Your task to perform on an android device: open the mobile data screen to see how much data has been used Image 0: 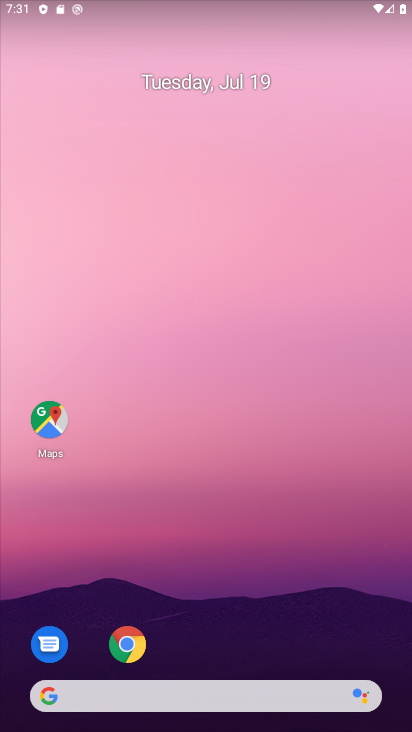
Step 0: drag from (277, 539) to (318, 114)
Your task to perform on an android device: open the mobile data screen to see how much data has been used Image 1: 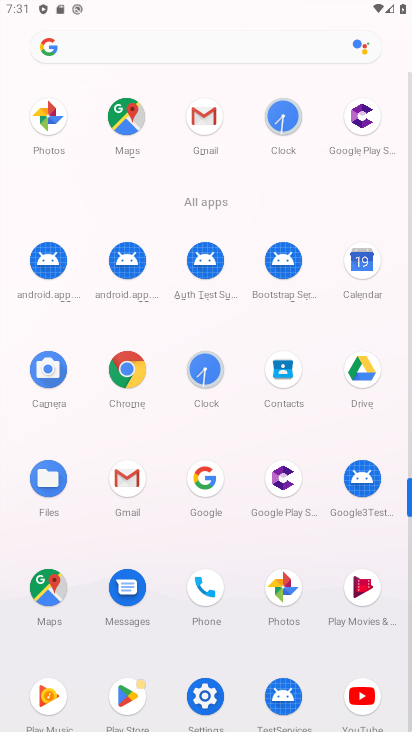
Step 1: drag from (226, 622) to (148, 242)
Your task to perform on an android device: open the mobile data screen to see how much data has been used Image 2: 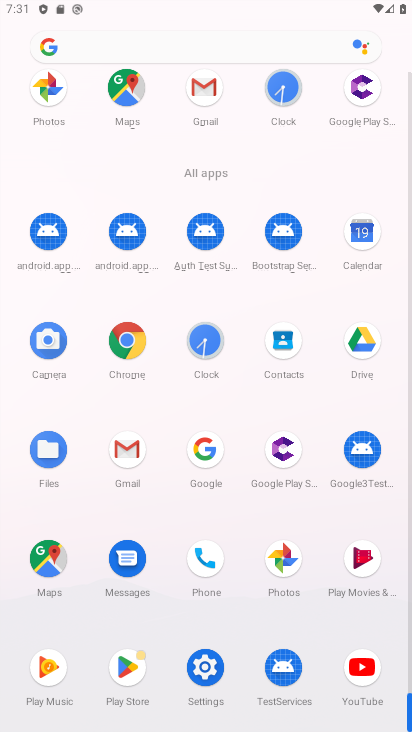
Step 2: click (198, 670)
Your task to perform on an android device: open the mobile data screen to see how much data has been used Image 3: 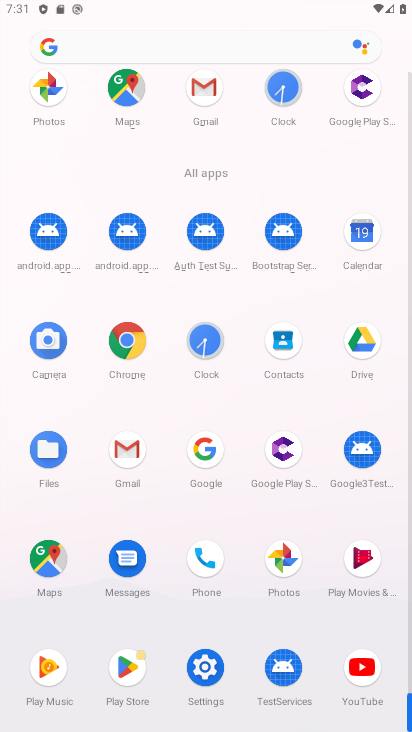
Step 3: click (198, 670)
Your task to perform on an android device: open the mobile data screen to see how much data has been used Image 4: 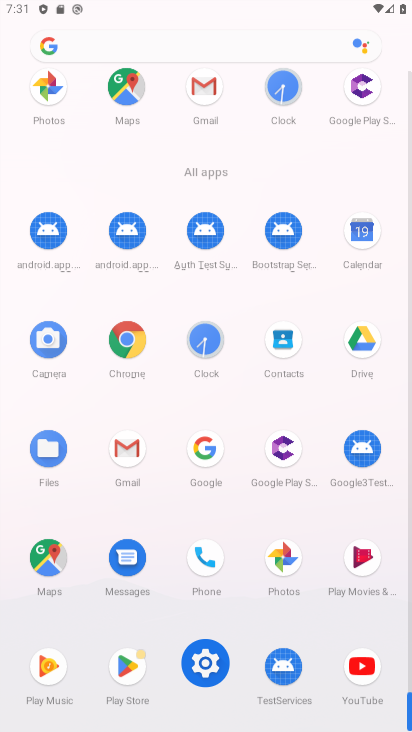
Step 4: click (198, 670)
Your task to perform on an android device: open the mobile data screen to see how much data has been used Image 5: 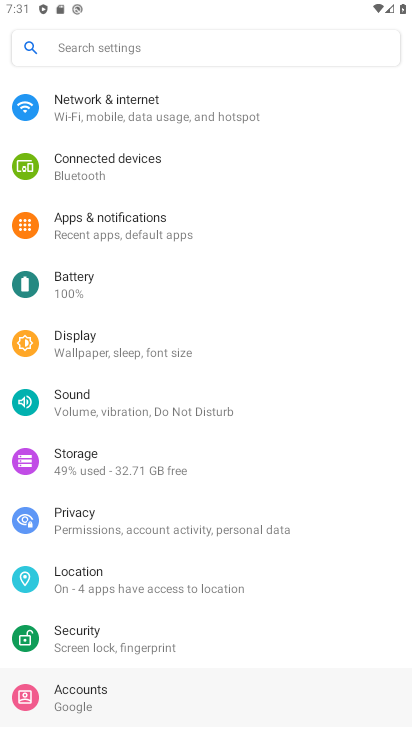
Step 5: click (198, 670)
Your task to perform on an android device: open the mobile data screen to see how much data has been used Image 6: 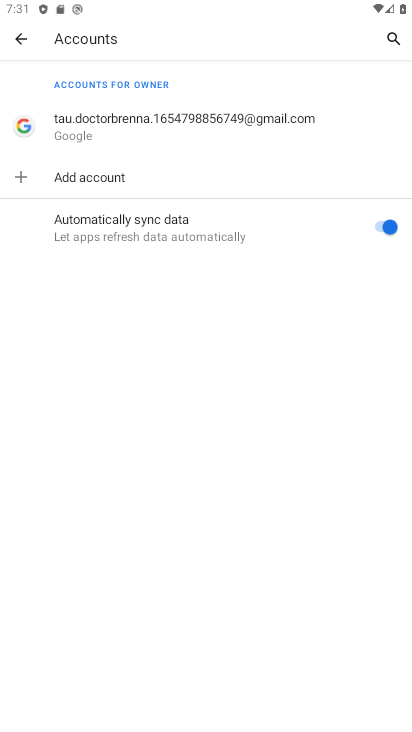
Step 6: click (24, 31)
Your task to perform on an android device: open the mobile data screen to see how much data has been used Image 7: 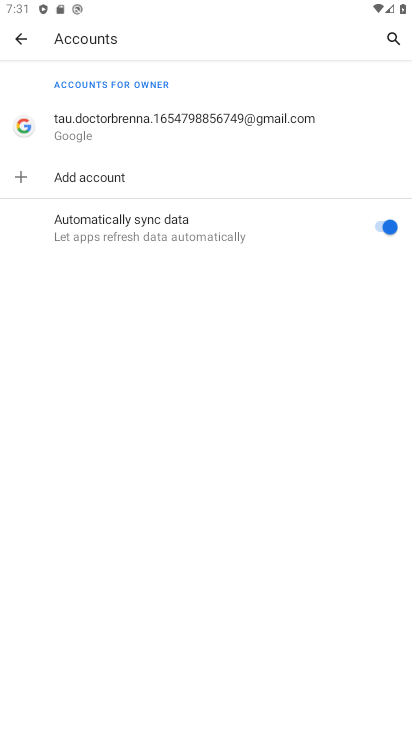
Step 7: click (24, 31)
Your task to perform on an android device: open the mobile data screen to see how much data has been used Image 8: 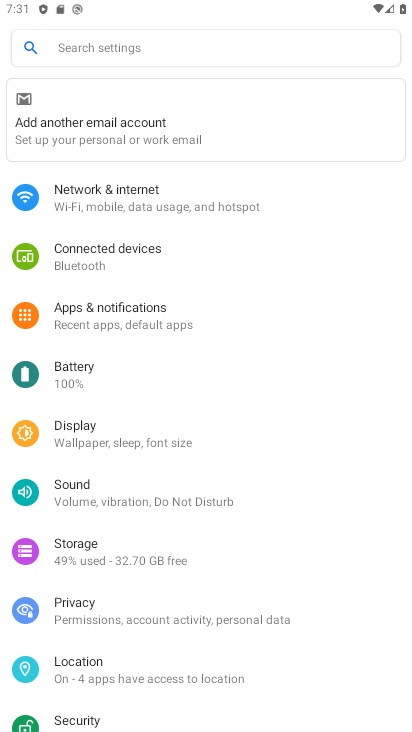
Step 8: click (121, 195)
Your task to perform on an android device: open the mobile data screen to see how much data has been used Image 9: 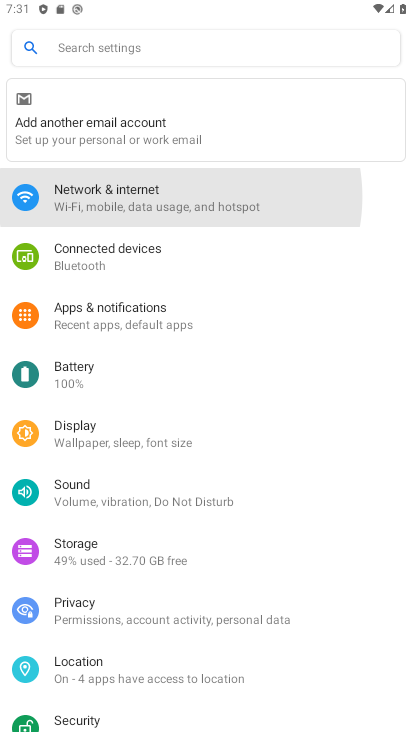
Step 9: click (121, 195)
Your task to perform on an android device: open the mobile data screen to see how much data has been used Image 10: 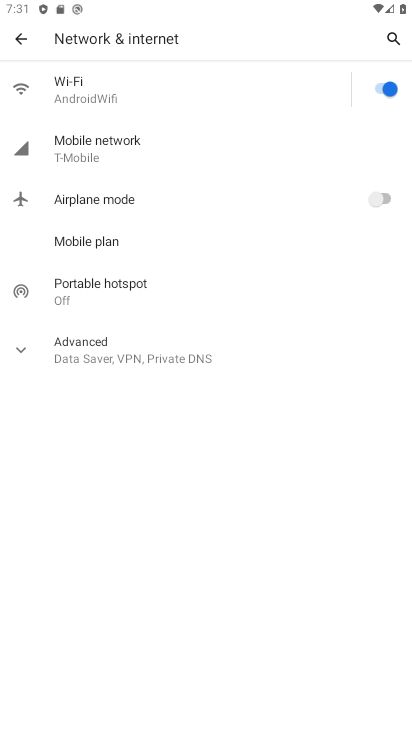
Step 10: click (96, 148)
Your task to perform on an android device: open the mobile data screen to see how much data has been used Image 11: 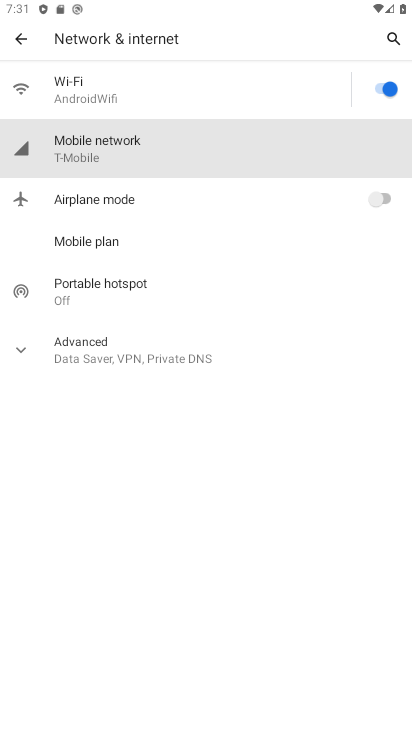
Step 11: click (96, 148)
Your task to perform on an android device: open the mobile data screen to see how much data has been used Image 12: 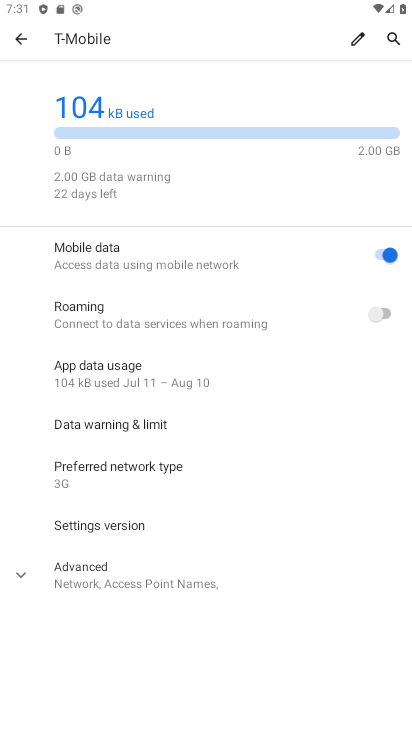
Step 12: task complete